Your task to perform on an android device: View the shopping cart on walmart. Image 0: 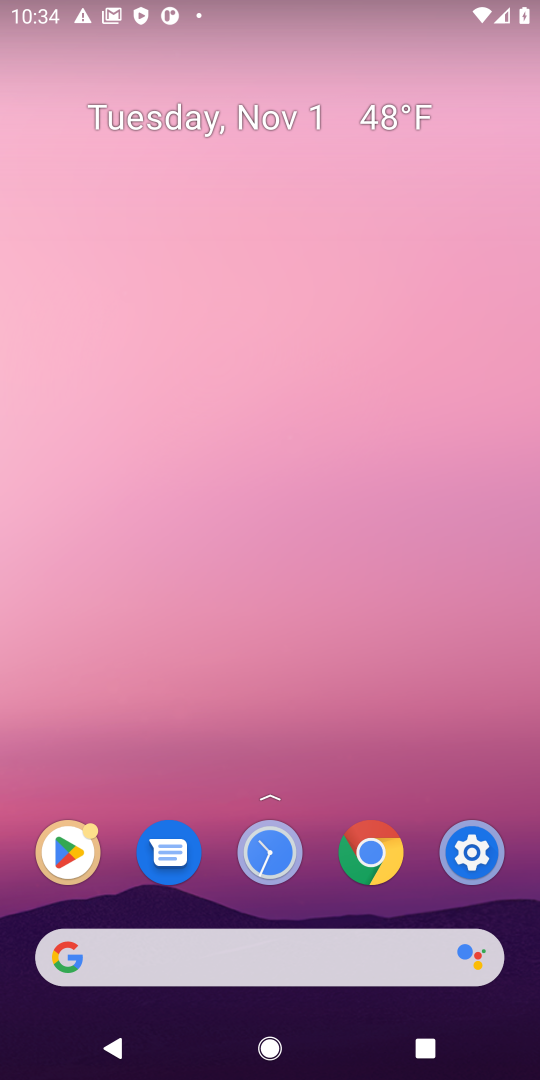
Step 0: click (208, 944)
Your task to perform on an android device: View the shopping cart on walmart. Image 1: 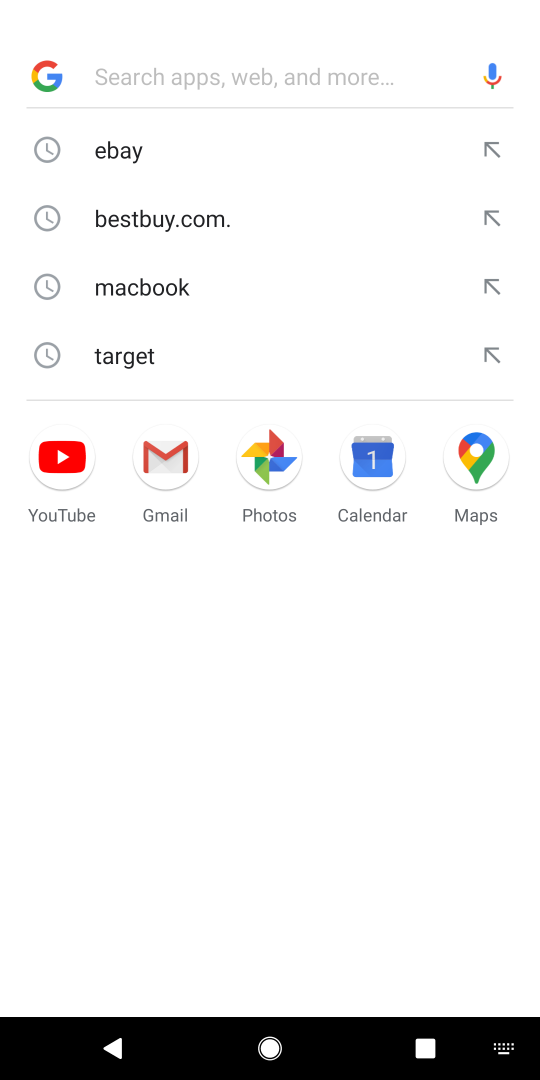
Step 1: type "walmart"
Your task to perform on an android device: View the shopping cart on walmart. Image 2: 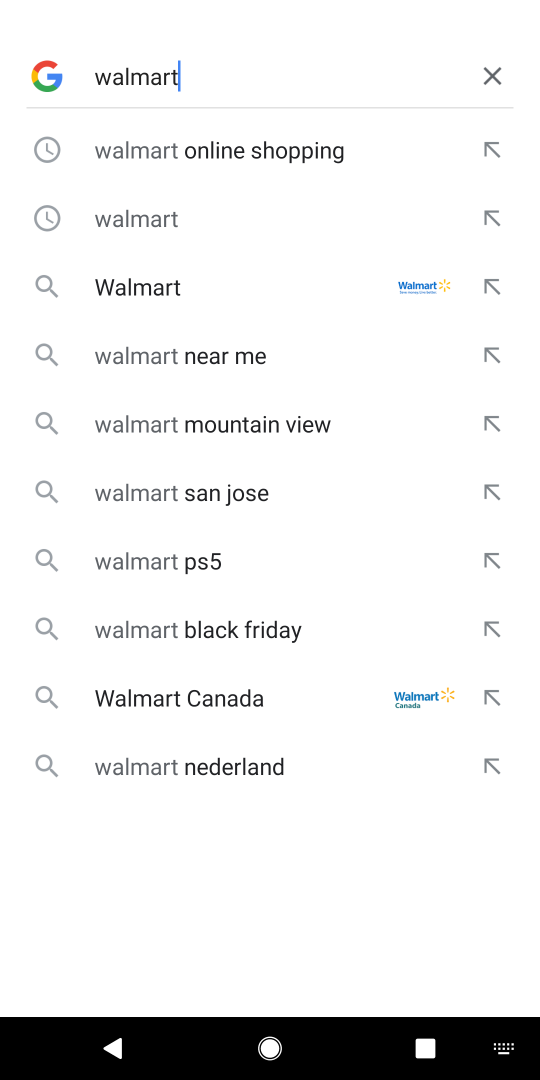
Step 2: type ""
Your task to perform on an android device: View the shopping cart on walmart. Image 3: 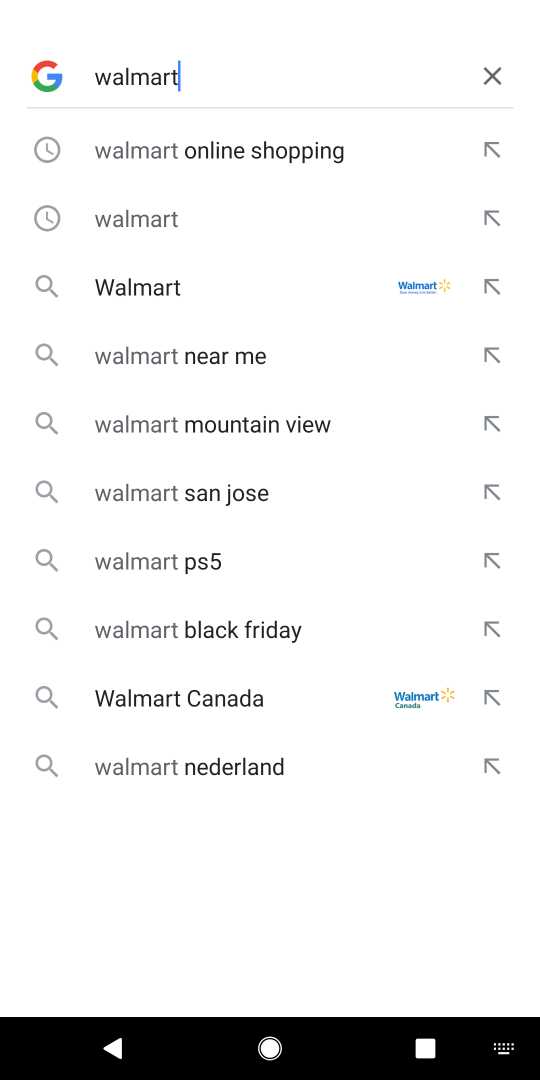
Step 3: press enter
Your task to perform on an android device: View the shopping cart on walmart. Image 4: 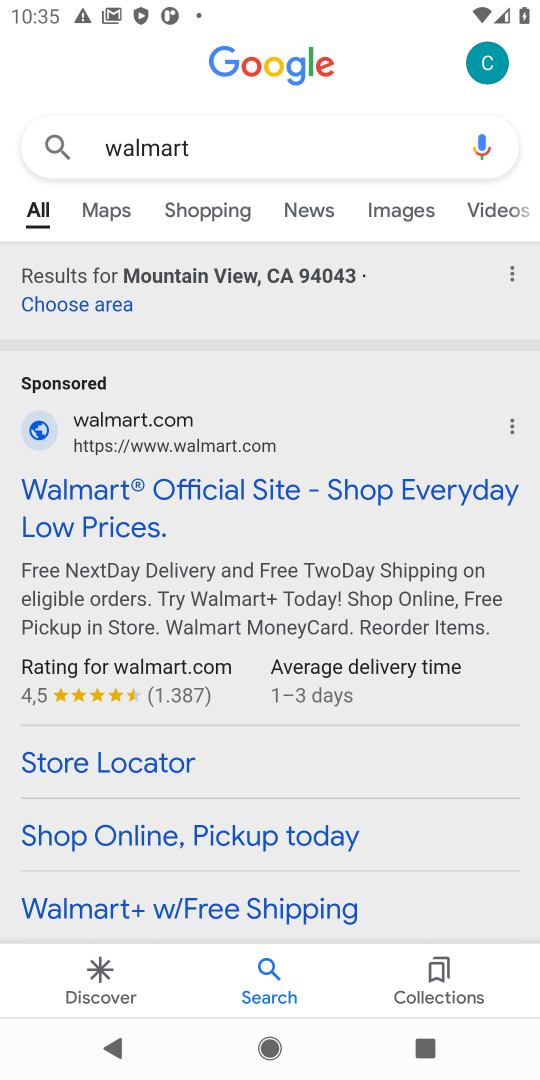
Step 4: click (322, 488)
Your task to perform on an android device: View the shopping cart on walmart. Image 5: 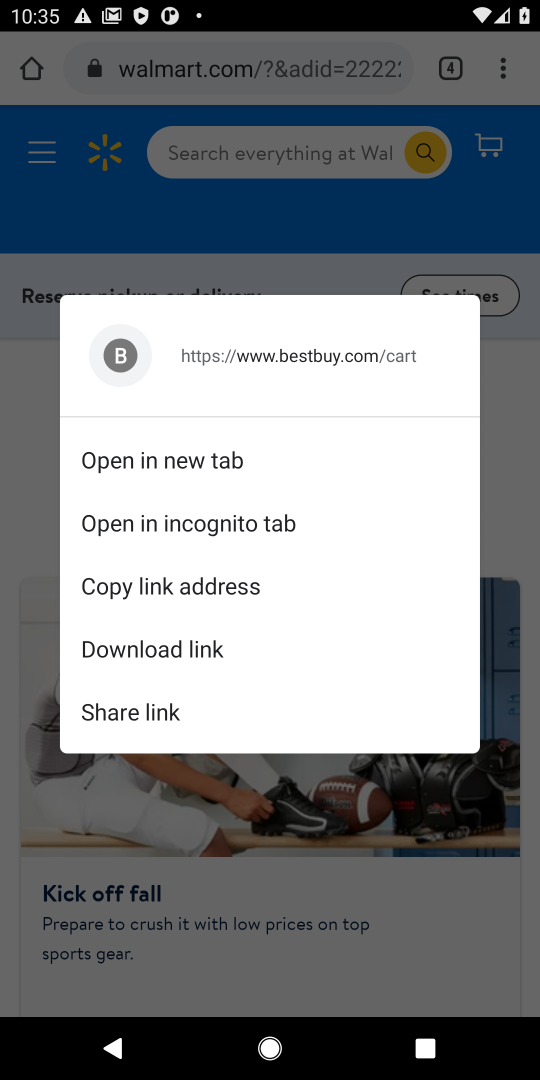
Step 5: click (518, 467)
Your task to perform on an android device: View the shopping cart on walmart. Image 6: 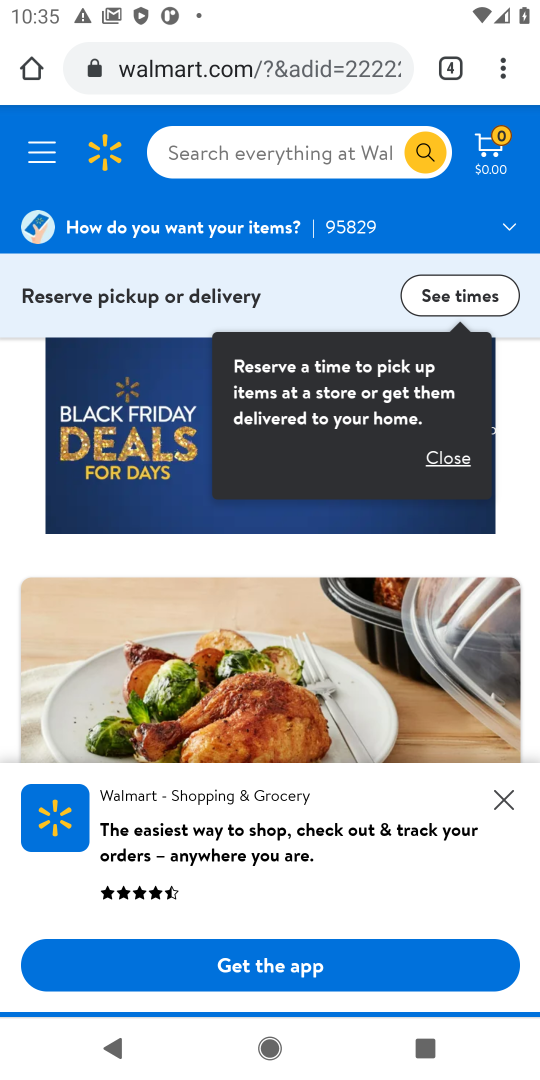
Step 6: click (508, 794)
Your task to perform on an android device: View the shopping cart on walmart. Image 7: 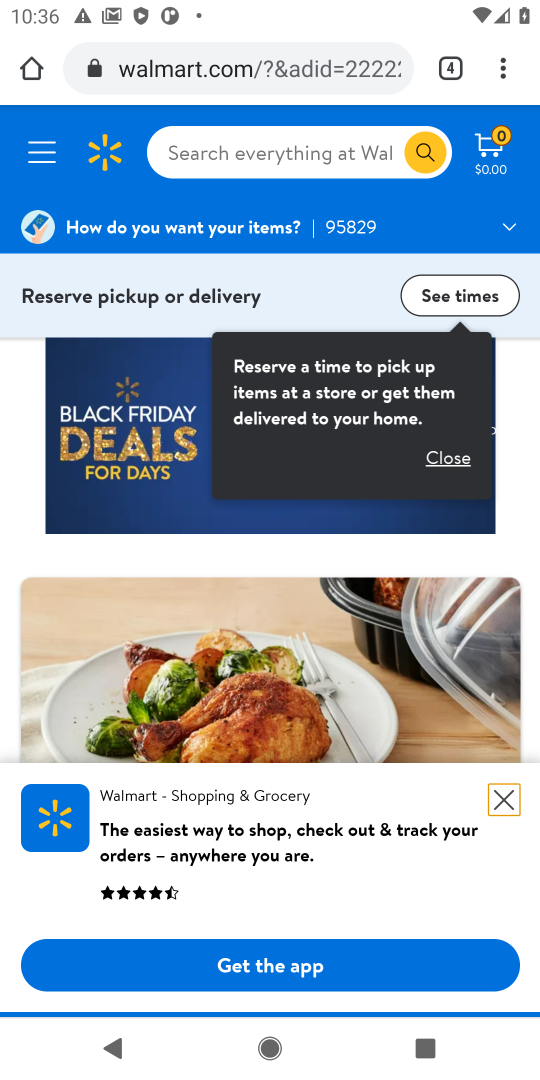
Step 7: click (507, 155)
Your task to perform on an android device: View the shopping cart on walmart. Image 8: 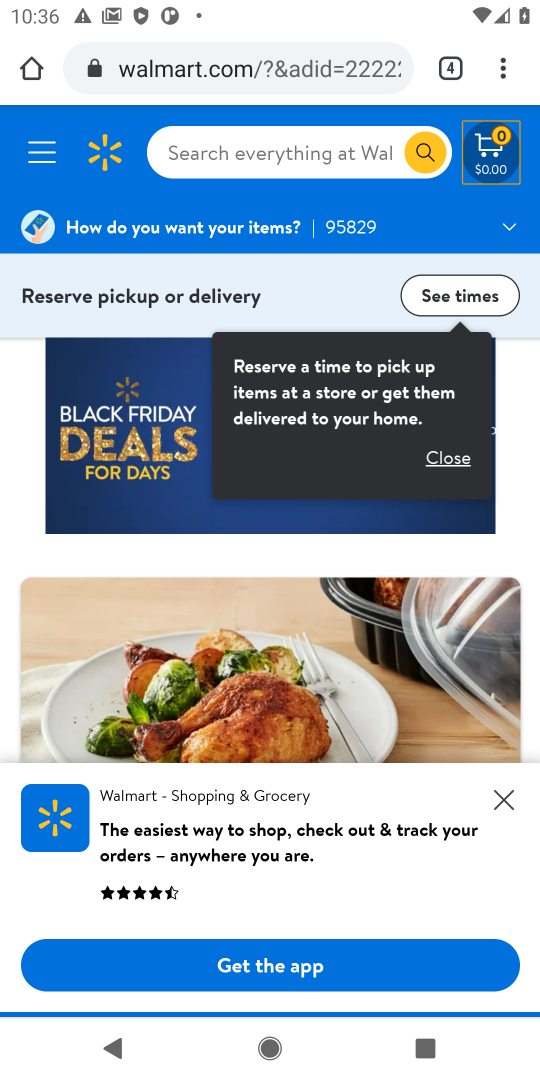
Step 8: click (507, 155)
Your task to perform on an android device: View the shopping cart on walmart. Image 9: 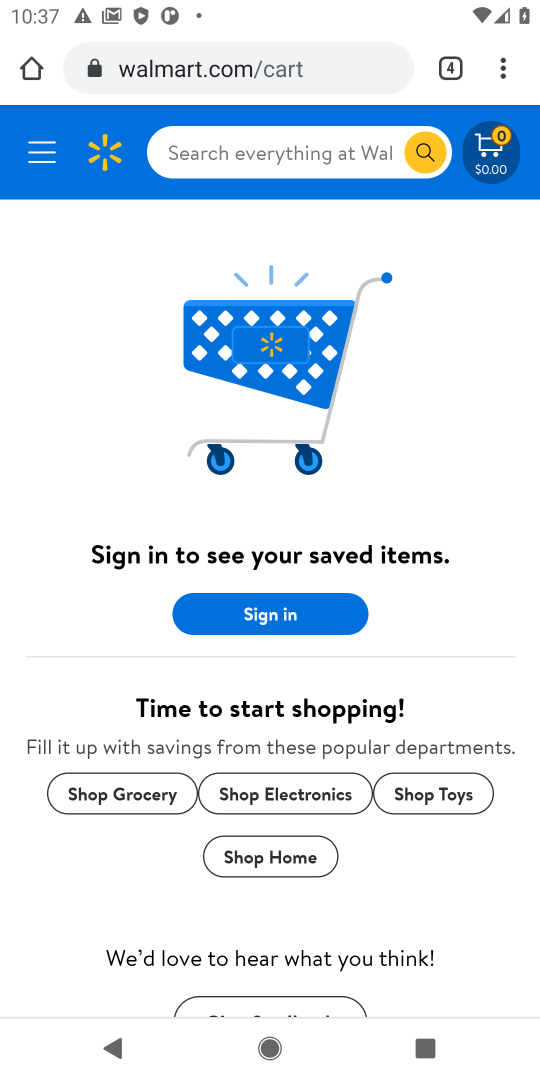
Step 9: task complete